Your task to perform on an android device: Go to calendar. Show me events next week Image 0: 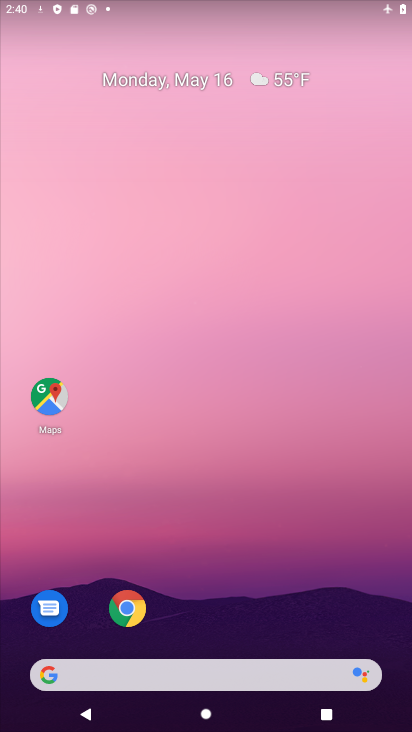
Step 0: drag from (192, 618) to (202, 255)
Your task to perform on an android device: Go to calendar. Show me events next week Image 1: 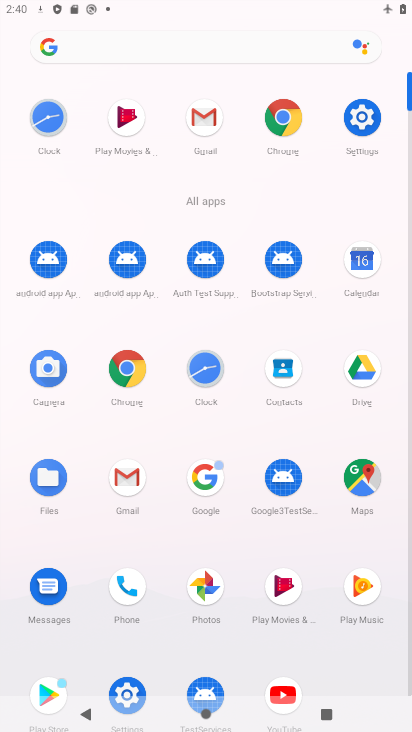
Step 1: click (353, 251)
Your task to perform on an android device: Go to calendar. Show me events next week Image 2: 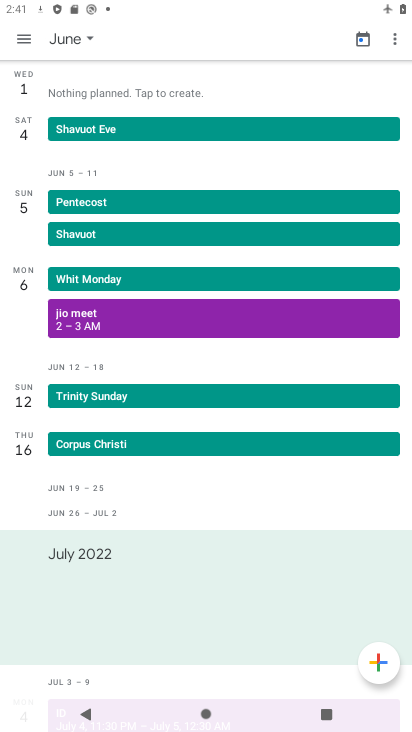
Step 2: click (87, 49)
Your task to perform on an android device: Go to calendar. Show me events next week Image 3: 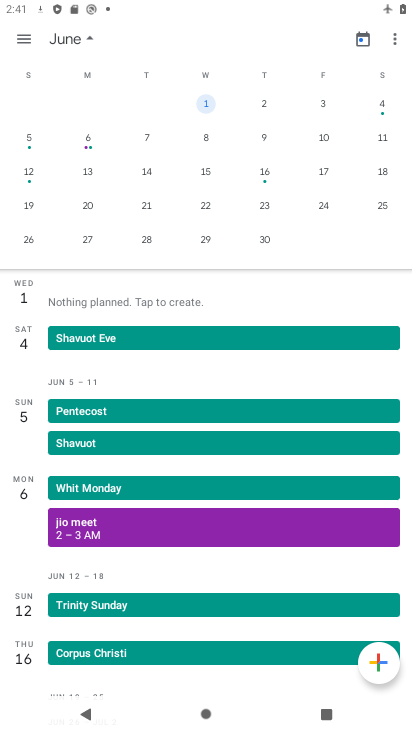
Step 3: click (34, 139)
Your task to perform on an android device: Go to calendar. Show me events next week Image 4: 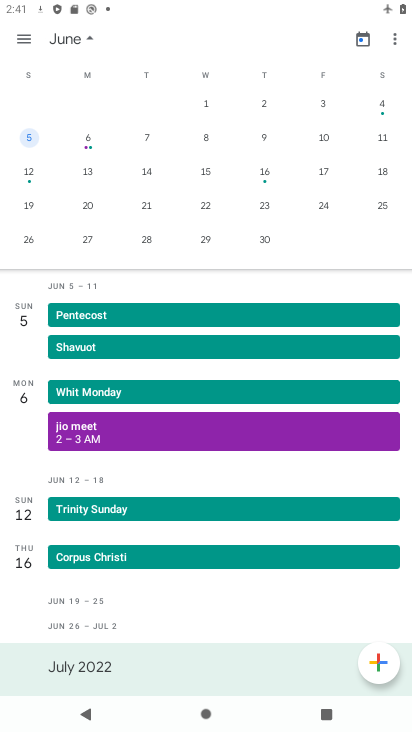
Step 4: click (83, 145)
Your task to perform on an android device: Go to calendar. Show me events next week Image 5: 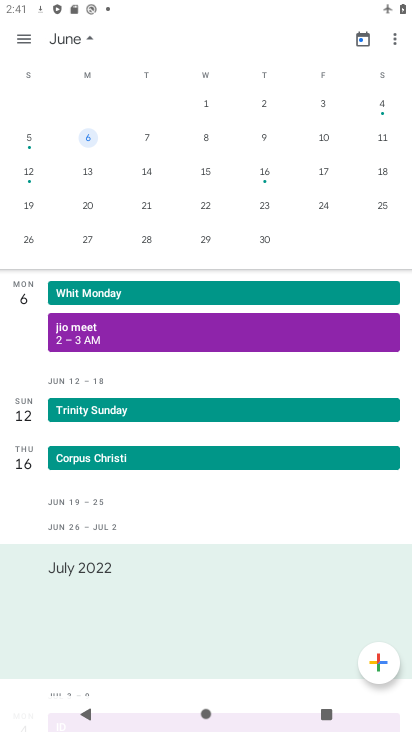
Step 5: task complete